Your task to perform on an android device: Open Google Image 0: 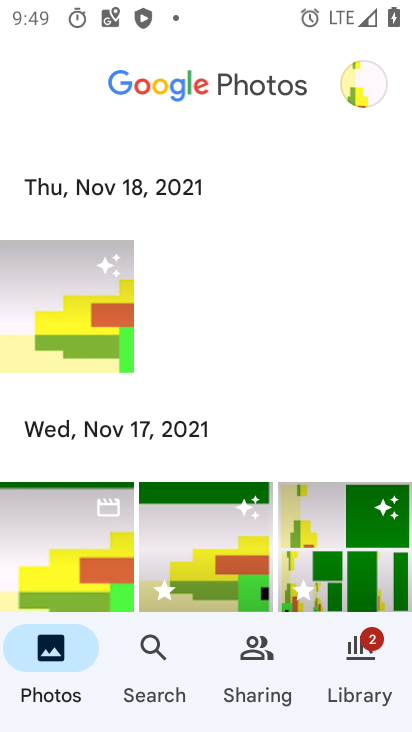
Step 0: press back button
Your task to perform on an android device: Open Google Image 1: 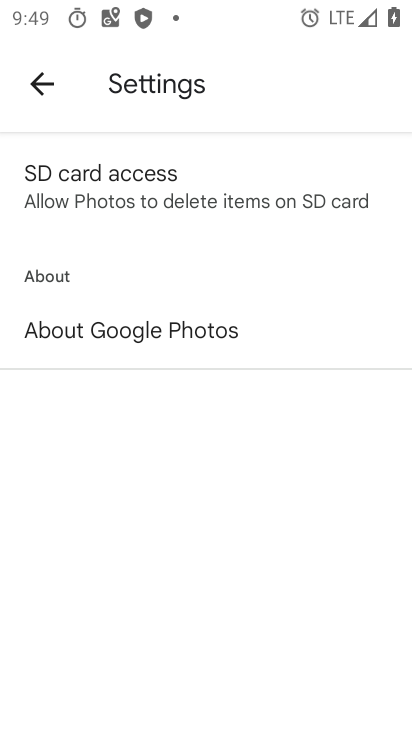
Step 1: press home button
Your task to perform on an android device: Open Google Image 2: 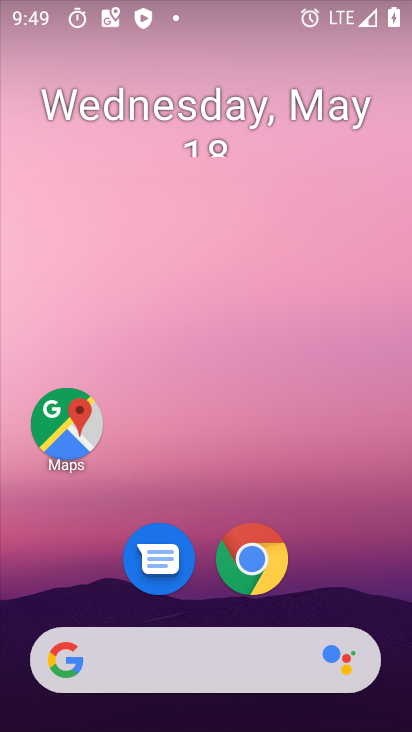
Step 2: drag from (369, 559) to (218, 29)
Your task to perform on an android device: Open Google Image 3: 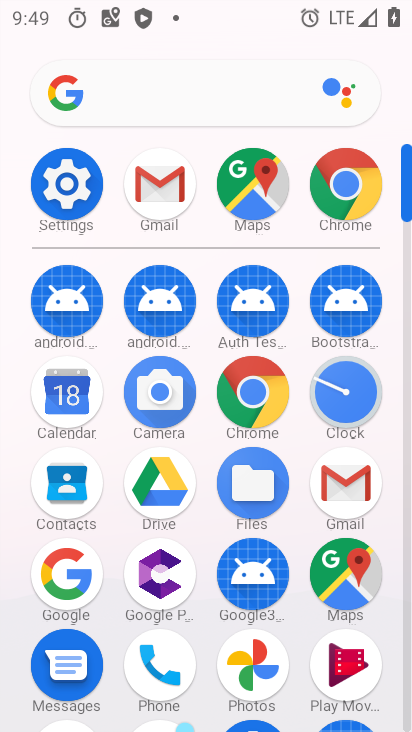
Step 3: drag from (6, 502) to (6, 192)
Your task to perform on an android device: Open Google Image 4: 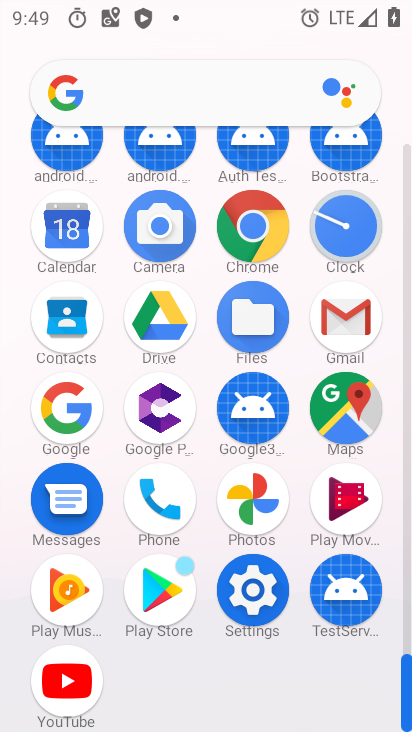
Step 4: click (255, 218)
Your task to perform on an android device: Open Google Image 5: 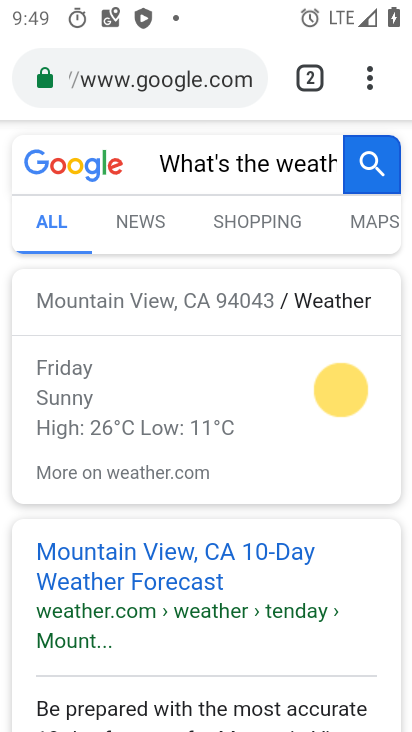
Step 5: click (203, 72)
Your task to perform on an android device: Open Google Image 6: 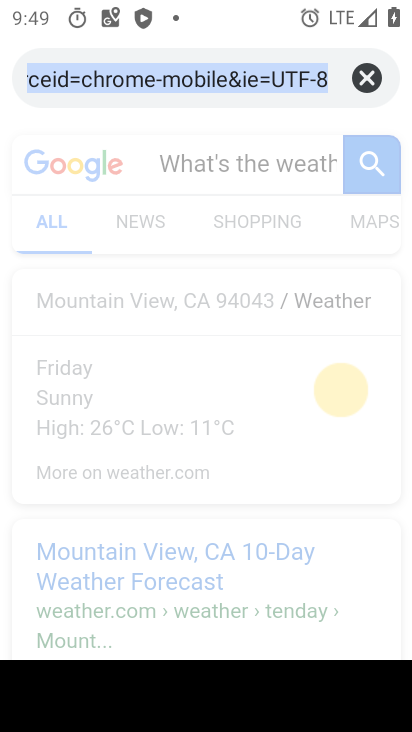
Step 6: click (360, 78)
Your task to perform on an android device: Open Google Image 7: 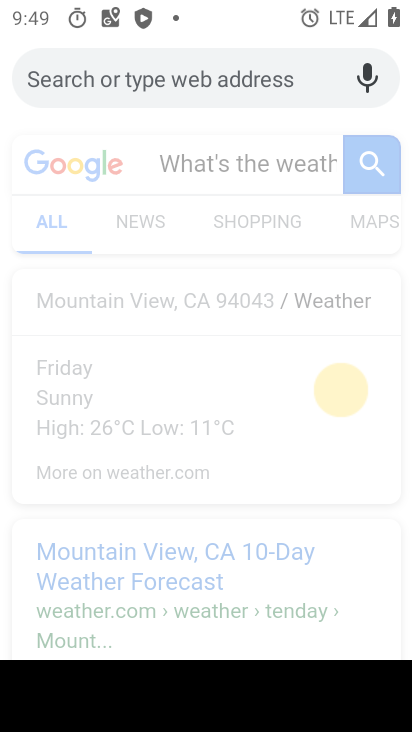
Step 7: type "Google"
Your task to perform on an android device: Open Google Image 8: 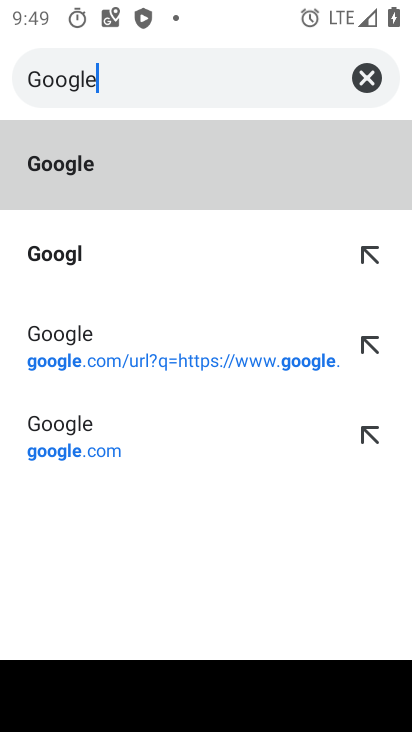
Step 8: type ""
Your task to perform on an android device: Open Google Image 9: 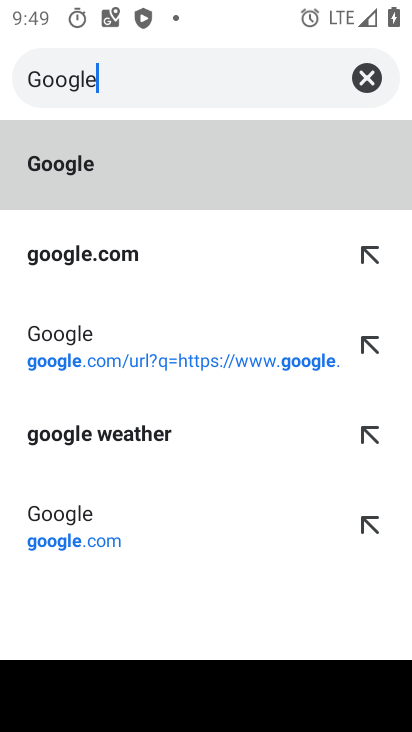
Step 9: click (105, 246)
Your task to perform on an android device: Open Google Image 10: 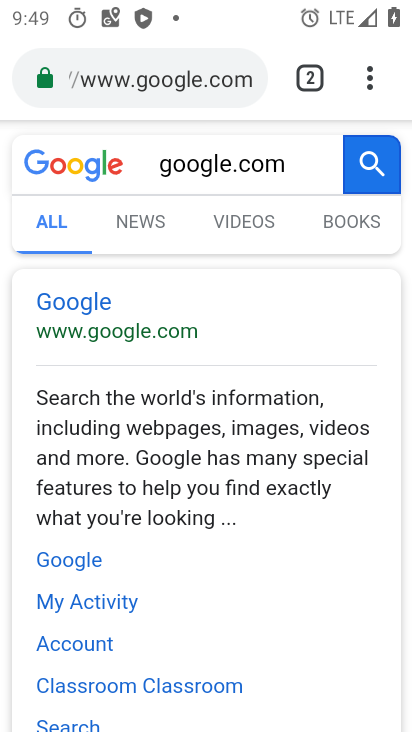
Step 10: click (91, 297)
Your task to perform on an android device: Open Google Image 11: 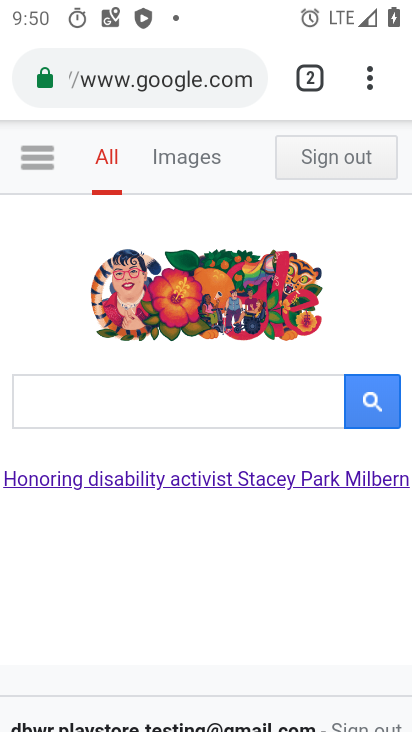
Step 11: task complete